Your task to perform on an android device: set default search engine in the chrome app Image 0: 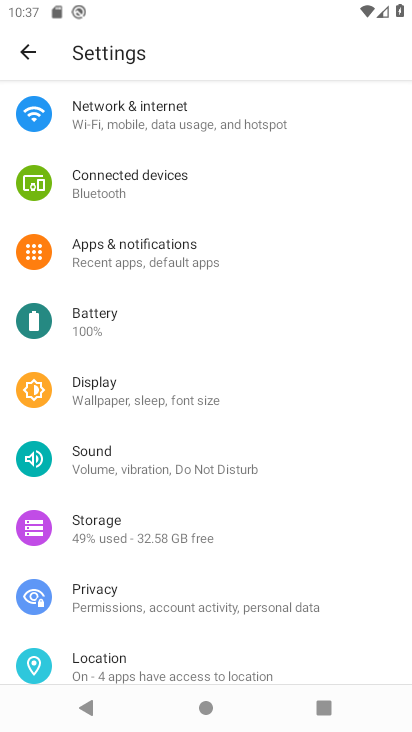
Step 0: press home button
Your task to perform on an android device: set default search engine in the chrome app Image 1: 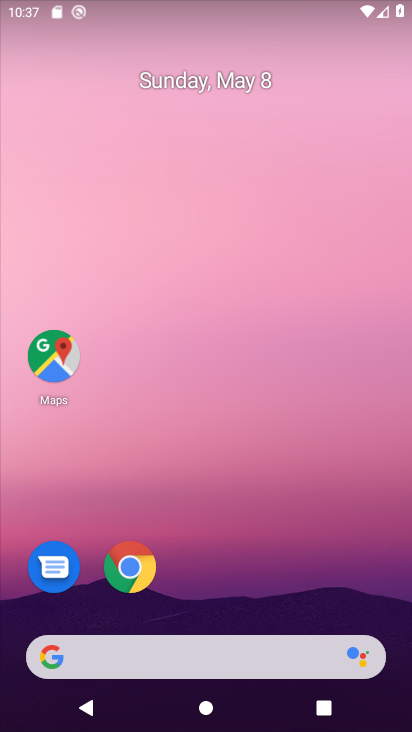
Step 1: click (143, 591)
Your task to perform on an android device: set default search engine in the chrome app Image 2: 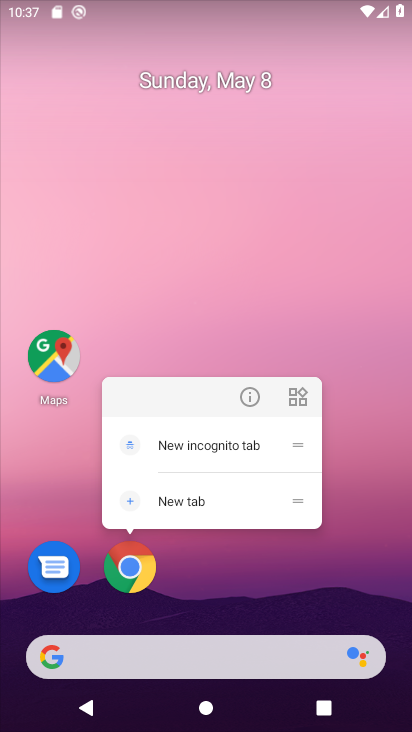
Step 2: click (134, 575)
Your task to perform on an android device: set default search engine in the chrome app Image 3: 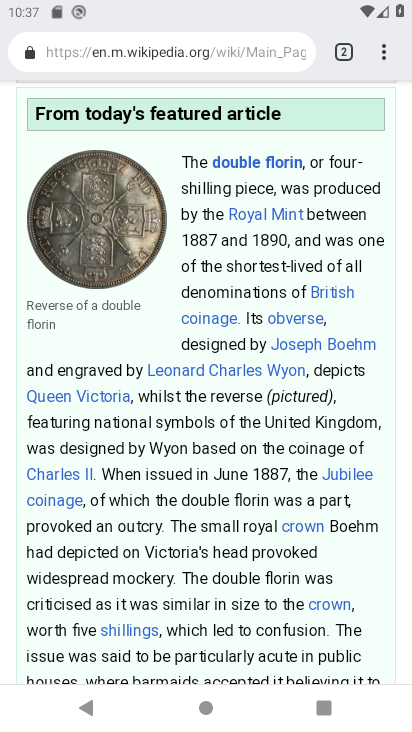
Step 3: click (381, 52)
Your task to perform on an android device: set default search engine in the chrome app Image 4: 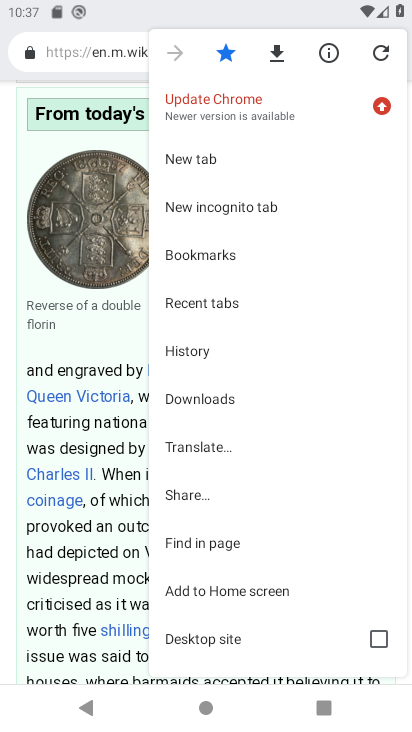
Step 4: drag from (262, 626) to (288, 103)
Your task to perform on an android device: set default search engine in the chrome app Image 5: 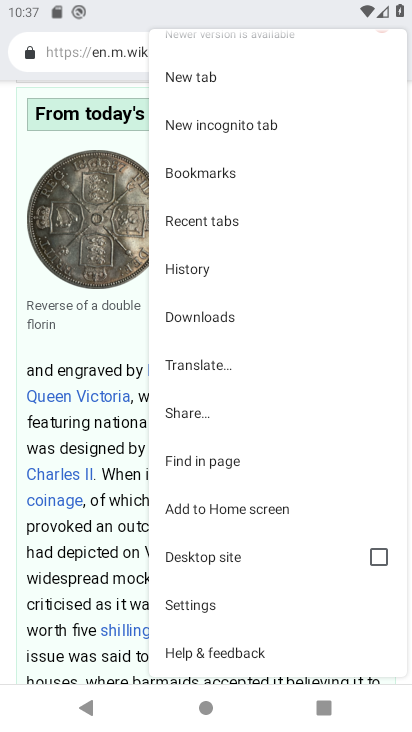
Step 5: click (205, 612)
Your task to perform on an android device: set default search engine in the chrome app Image 6: 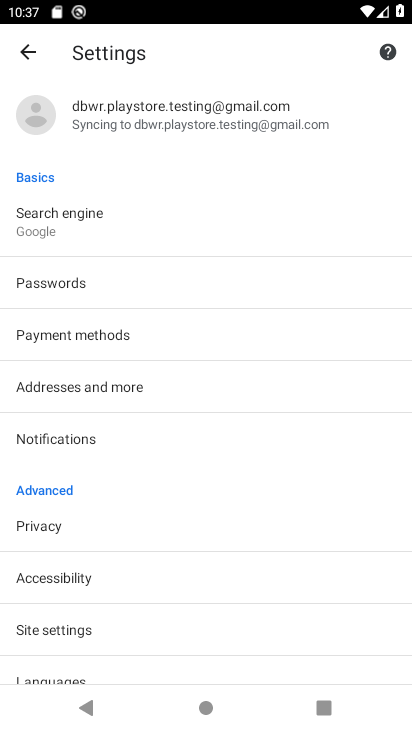
Step 6: click (46, 228)
Your task to perform on an android device: set default search engine in the chrome app Image 7: 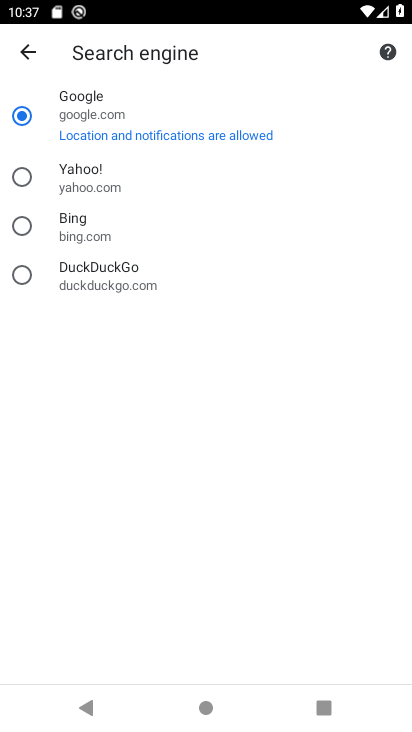
Step 7: click (28, 157)
Your task to perform on an android device: set default search engine in the chrome app Image 8: 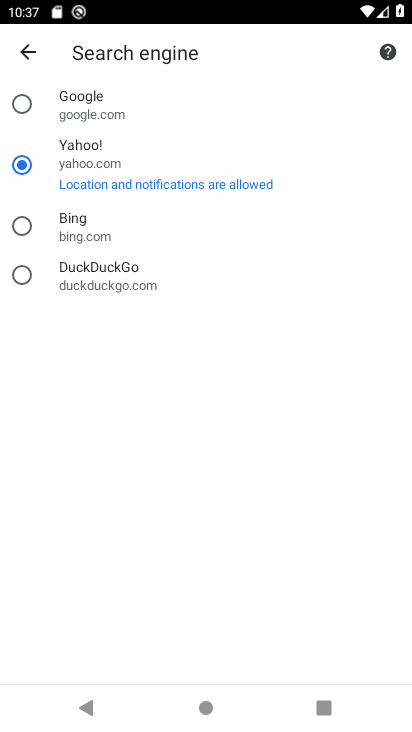
Step 8: task complete